Your task to perform on an android device: Search for Italian restaurants on Maps Image 0: 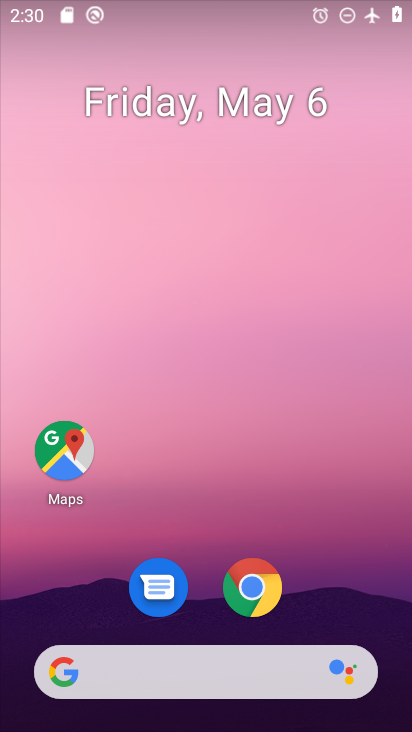
Step 0: click (59, 455)
Your task to perform on an android device: Search for Italian restaurants on Maps Image 1: 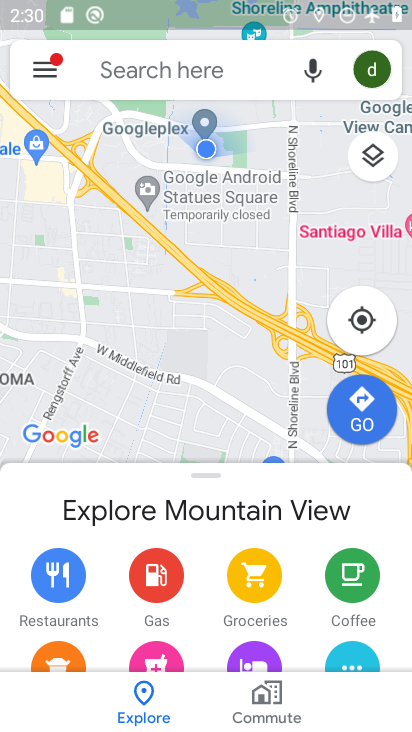
Step 1: click (208, 64)
Your task to perform on an android device: Search for Italian restaurants on Maps Image 2: 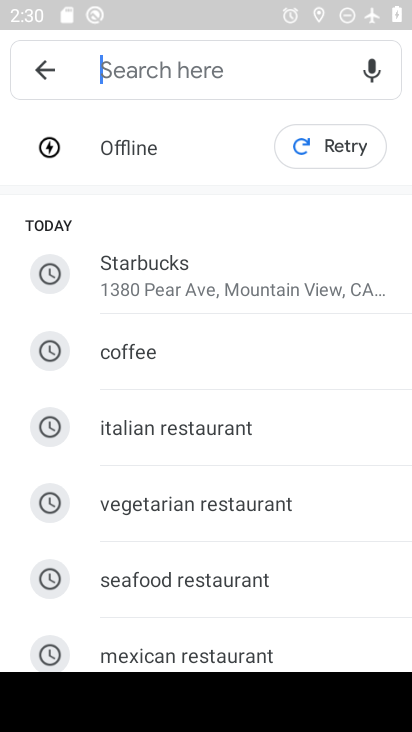
Step 2: click (198, 419)
Your task to perform on an android device: Search for Italian restaurants on Maps Image 3: 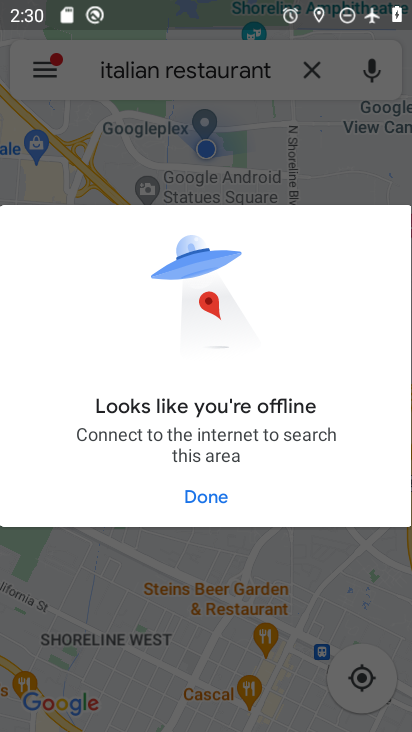
Step 3: task complete